Your task to perform on an android device: Is it going to rain tomorrow? Image 0: 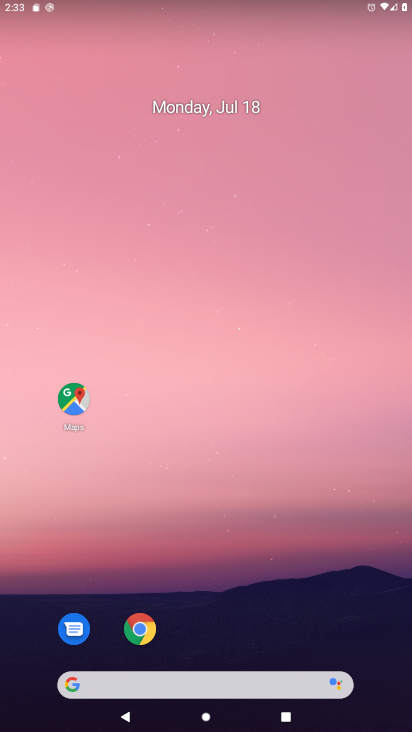
Step 0: drag from (213, 557) to (226, 124)
Your task to perform on an android device: Is it going to rain tomorrow? Image 1: 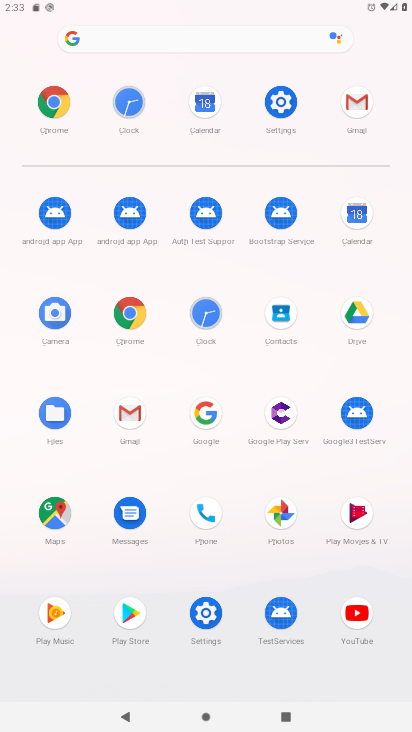
Step 1: click (208, 424)
Your task to perform on an android device: Is it going to rain tomorrow? Image 2: 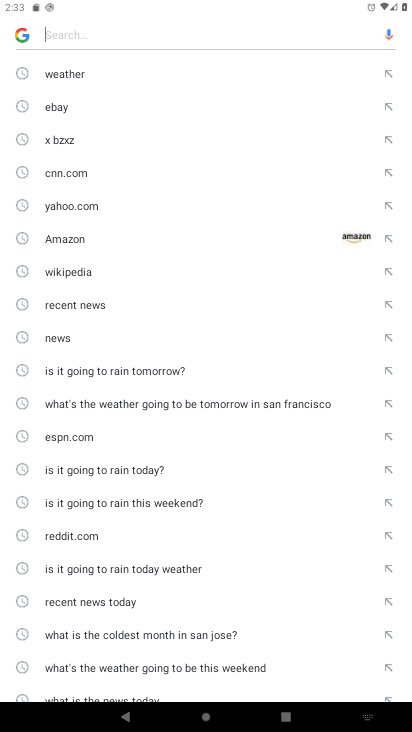
Step 2: click (59, 76)
Your task to perform on an android device: Is it going to rain tomorrow? Image 3: 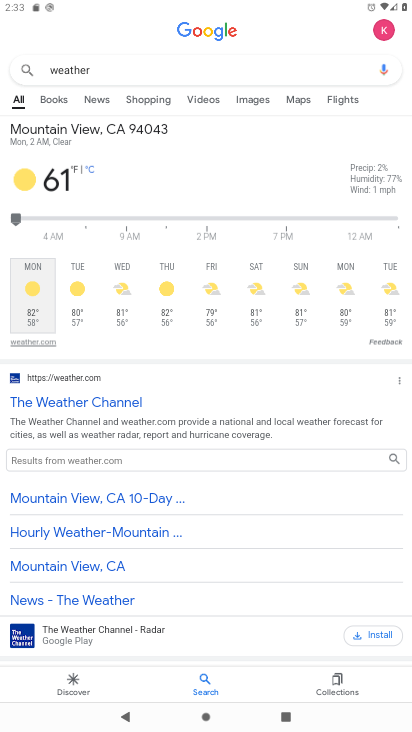
Step 3: click (49, 344)
Your task to perform on an android device: Is it going to rain tomorrow? Image 4: 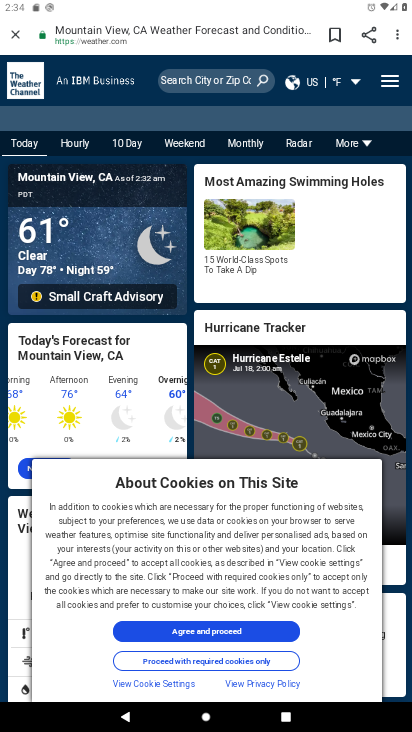
Step 4: click (131, 150)
Your task to perform on an android device: Is it going to rain tomorrow? Image 5: 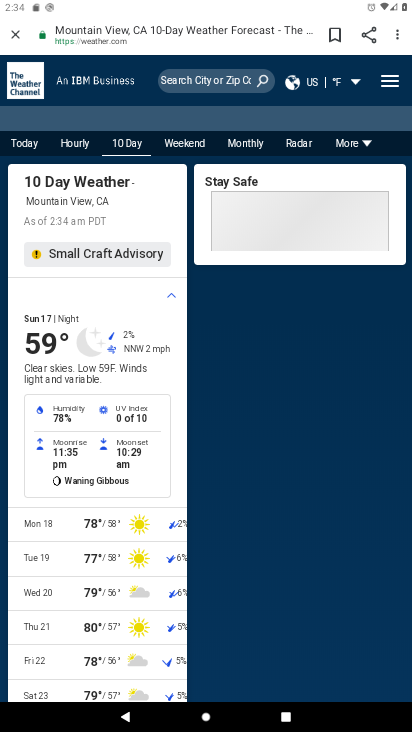
Step 5: task complete